Your task to perform on an android device: change keyboard looks Image 0: 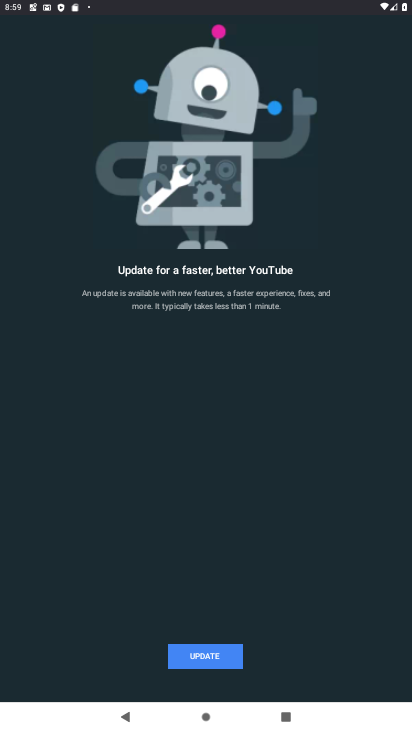
Step 0: press back button
Your task to perform on an android device: change keyboard looks Image 1: 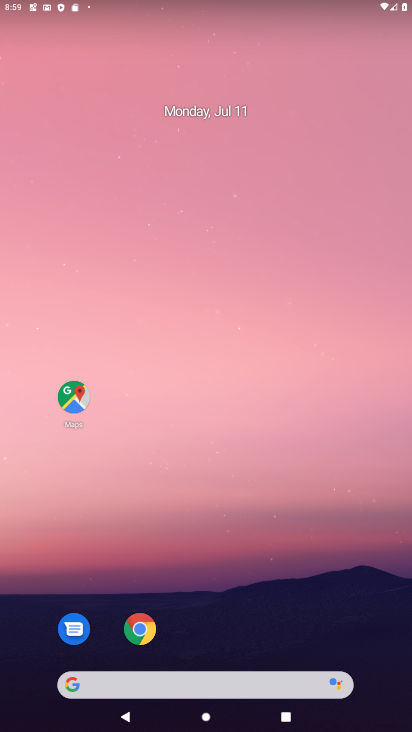
Step 1: drag from (290, 589) to (229, 106)
Your task to perform on an android device: change keyboard looks Image 2: 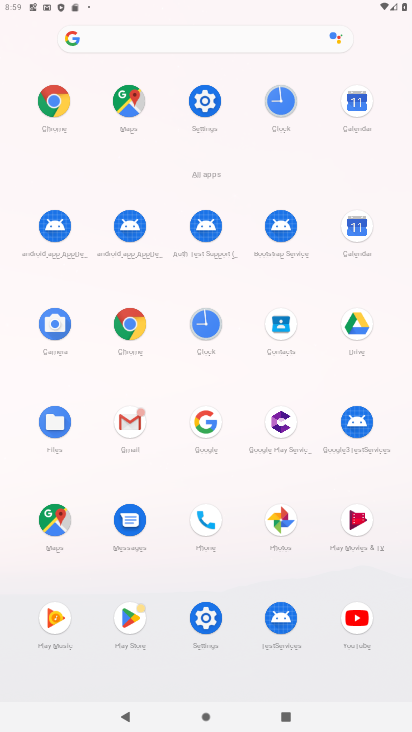
Step 2: click (217, 102)
Your task to perform on an android device: change keyboard looks Image 3: 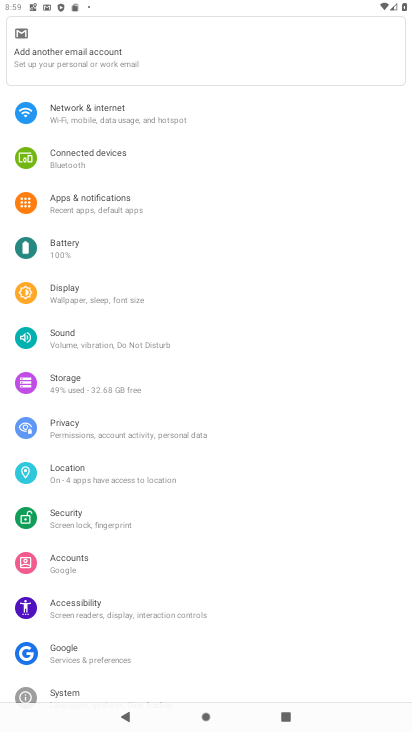
Step 3: drag from (298, 614) to (279, 93)
Your task to perform on an android device: change keyboard looks Image 4: 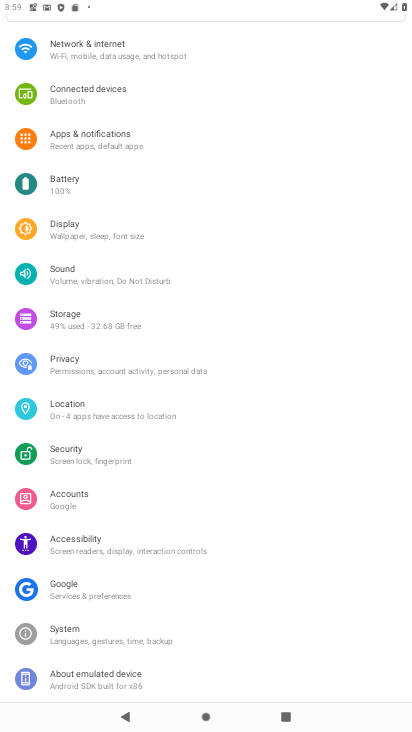
Step 4: click (91, 624)
Your task to perform on an android device: change keyboard looks Image 5: 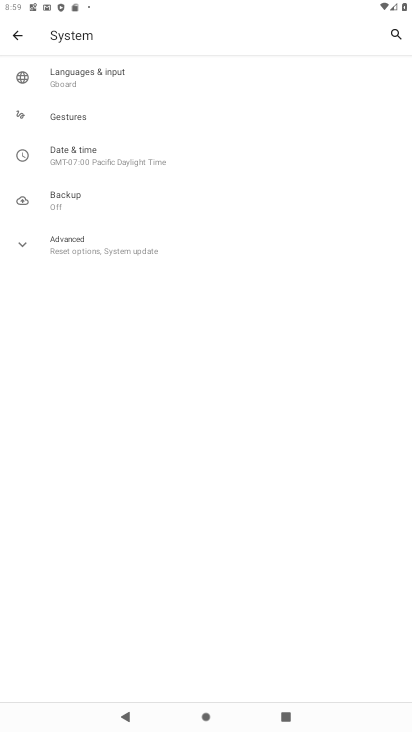
Step 5: click (89, 94)
Your task to perform on an android device: change keyboard looks Image 6: 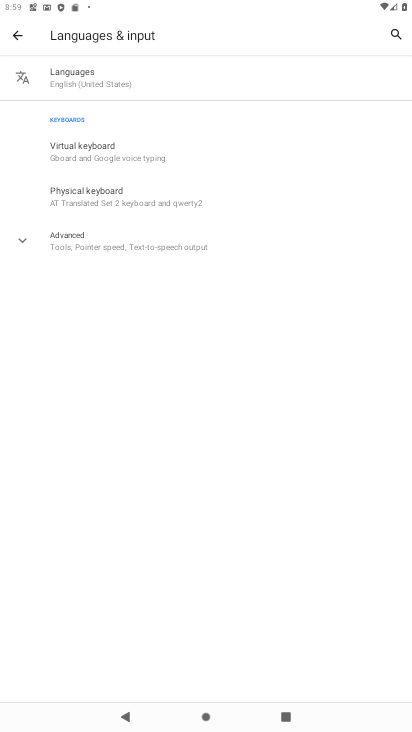
Step 6: click (120, 150)
Your task to perform on an android device: change keyboard looks Image 7: 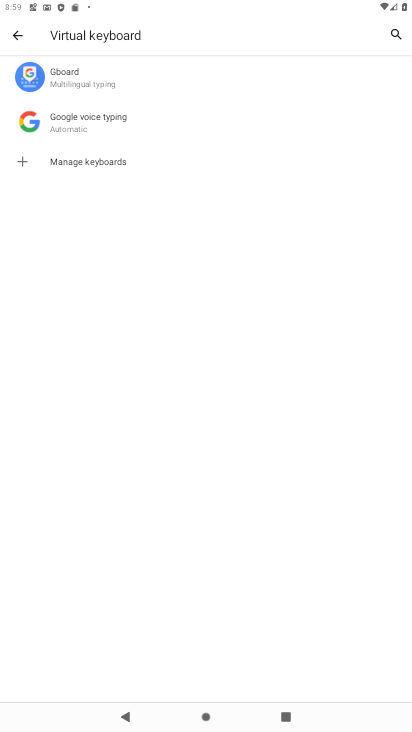
Step 7: click (131, 78)
Your task to perform on an android device: change keyboard looks Image 8: 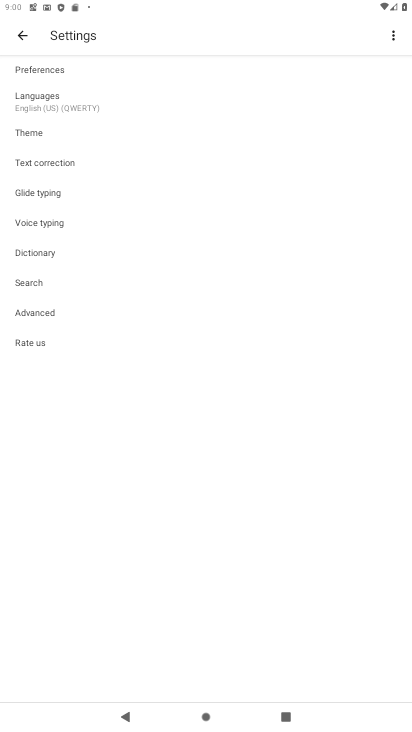
Step 8: click (49, 133)
Your task to perform on an android device: change keyboard looks Image 9: 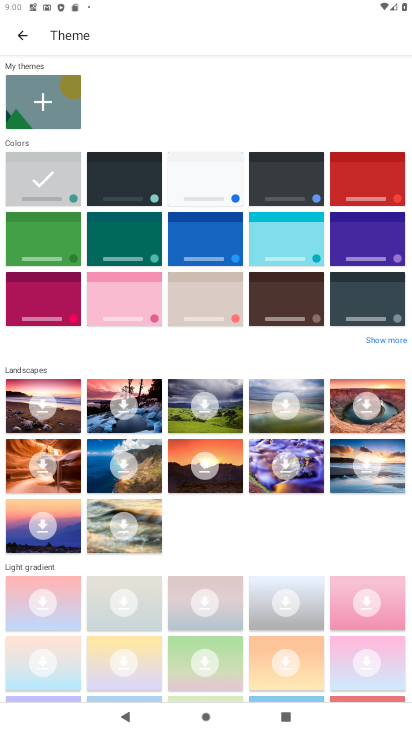
Step 9: click (137, 183)
Your task to perform on an android device: change keyboard looks Image 10: 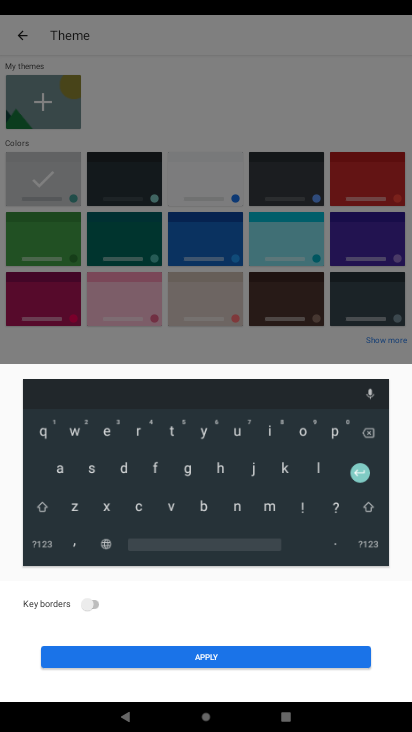
Step 10: click (311, 663)
Your task to perform on an android device: change keyboard looks Image 11: 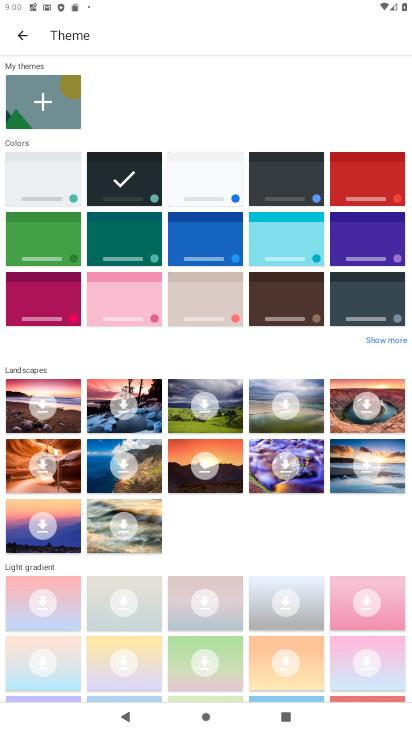
Step 11: task complete